Your task to perform on an android device: When is my next meeting? Image 0: 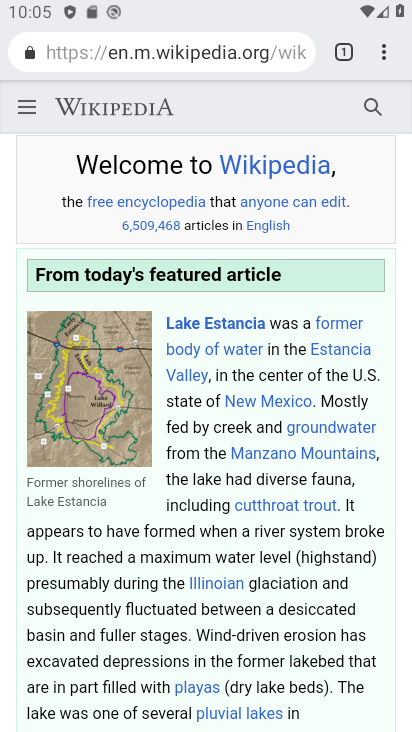
Step 0: press home button
Your task to perform on an android device: When is my next meeting? Image 1: 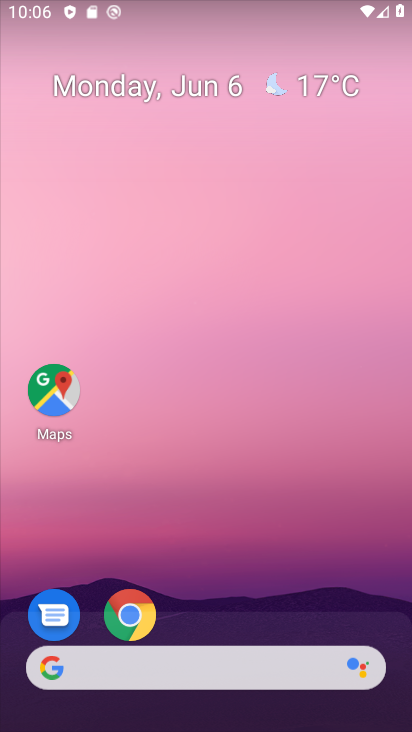
Step 1: drag from (252, 569) to (279, 15)
Your task to perform on an android device: When is my next meeting? Image 2: 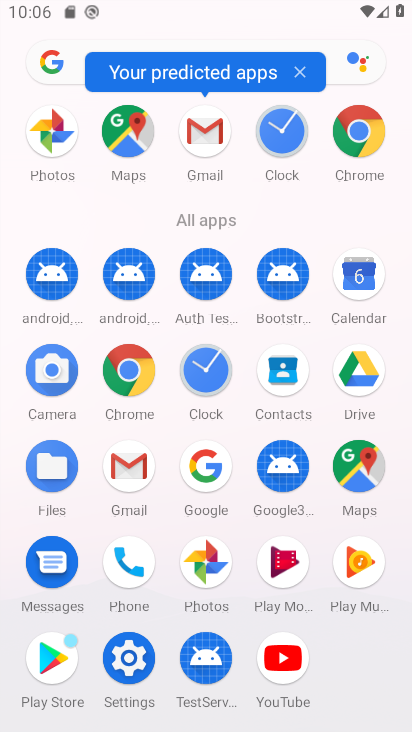
Step 2: click (348, 290)
Your task to perform on an android device: When is my next meeting? Image 3: 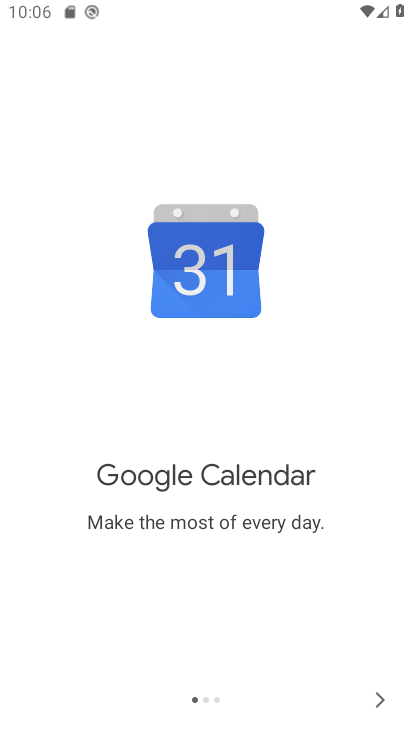
Step 3: click (372, 702)
Your task to perform on an android device: When is my next meeting? Image 4: 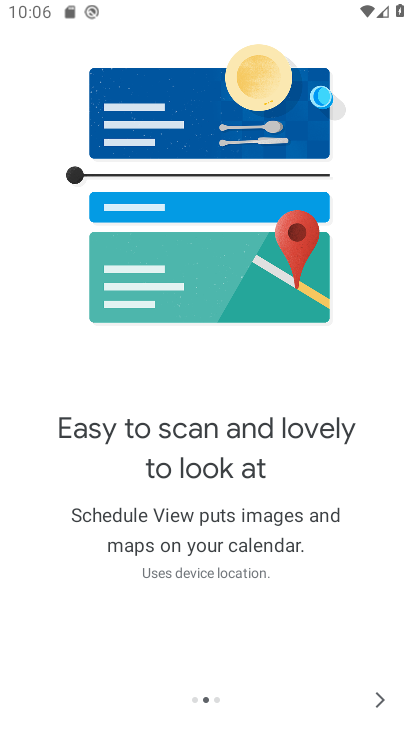
Step 4: click (372, 702)
Your task to perform on an android device: When is my next meeting? Image 5: 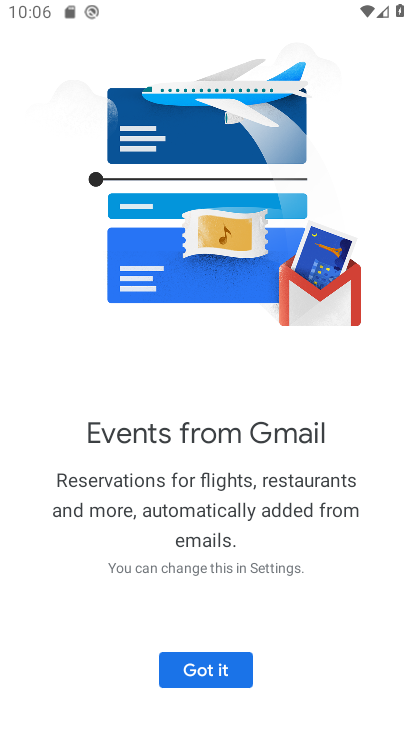
Step 5: click (372, 702)
Your task to perform on an android device: When is my next meeting? Image 6: 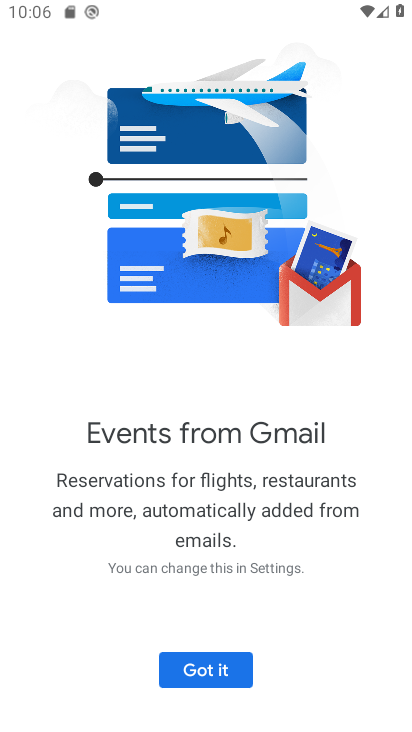
Step 6: click (247, 663)
Your task to perform on an android device: When is my next meeting? Image 7: 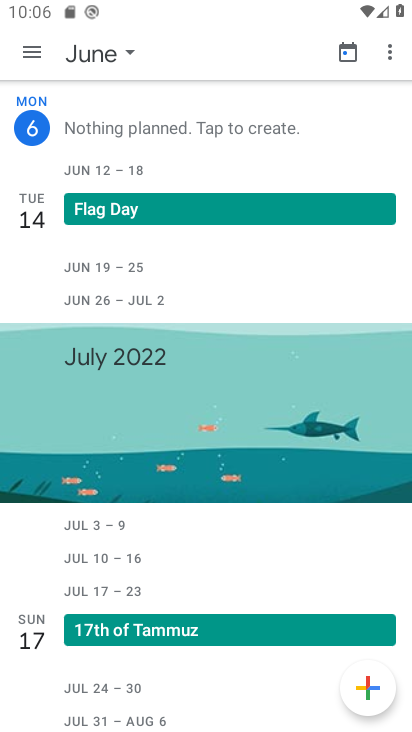
Step 7: click (120, 58)
Your task to perform on an android device: When is my next meeting? Image 8: 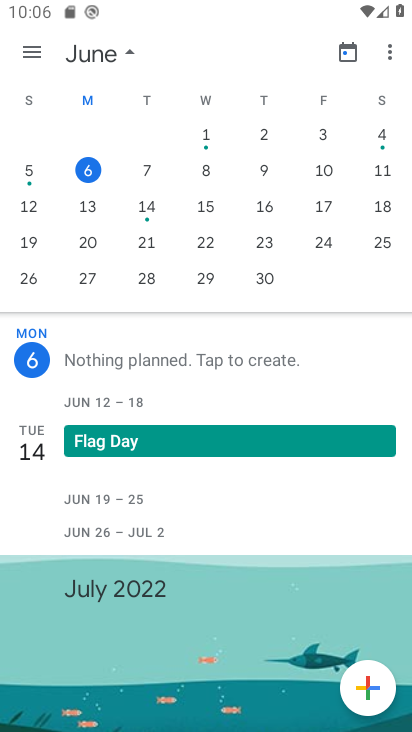
Step 8: click (81, 167)
Your task to perform on an android device: When is my next meeting? Image 9: 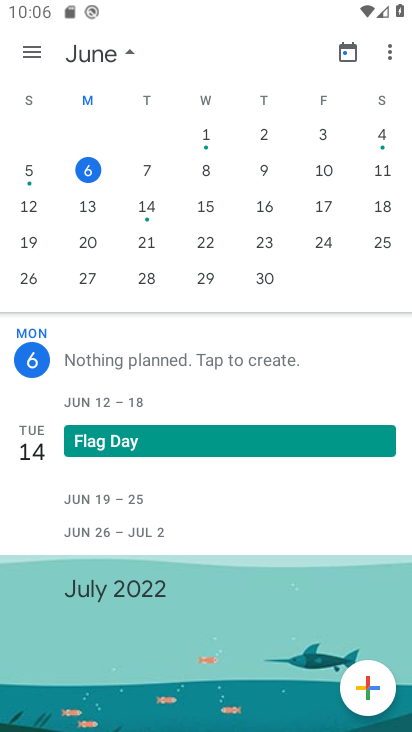
Step 9: task complete